Your task to perform on an android device: toggle translation in the chrome app Image 0: 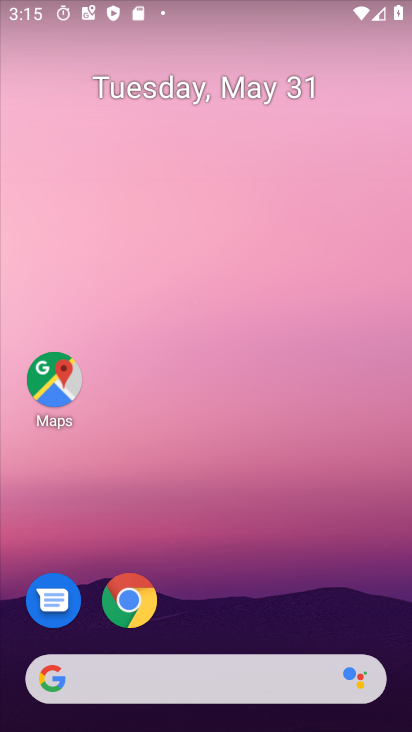
Step 0: drag from (219, 635) to (253, 0)
Your task to perform on an android device: toggle translation in the chrome app Image 1: 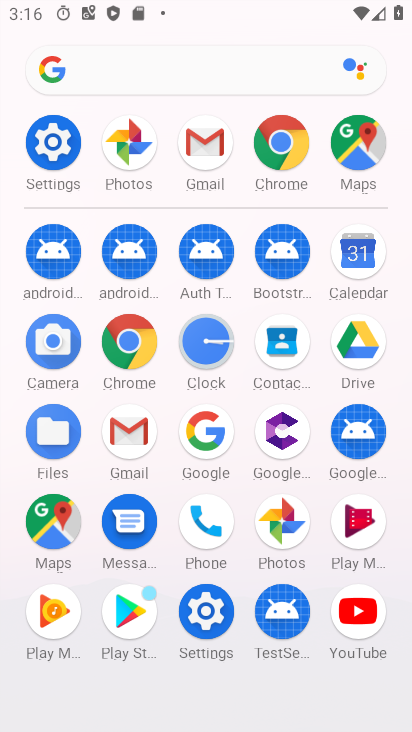
Step 1: click (123, 332)
Your task to perform on an android device: toggle translation in the chrome app Image 2: 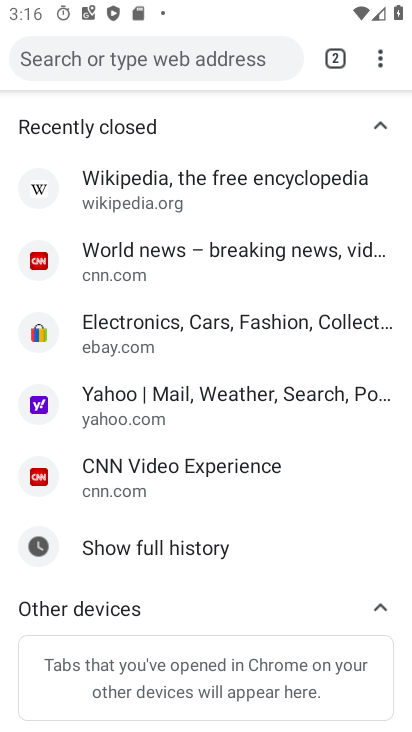
Step 2: click (338, 53)
Your task to perform on an android device: toggle translation in the chrome app Image 3: 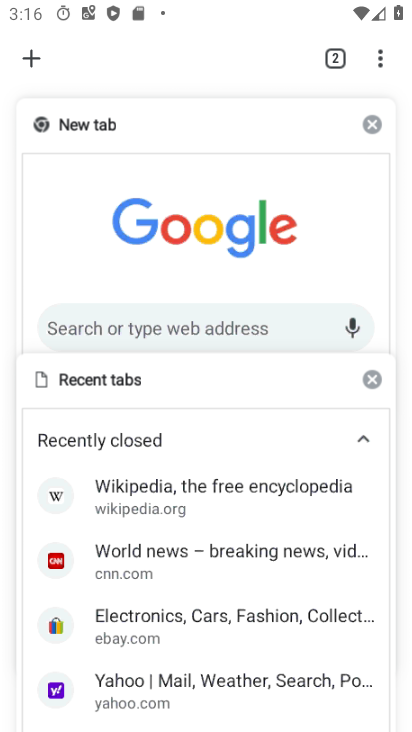
Step 3: click (367, 120)
Your task to perform on an android device: toggle translation in the chrome app Image 4: 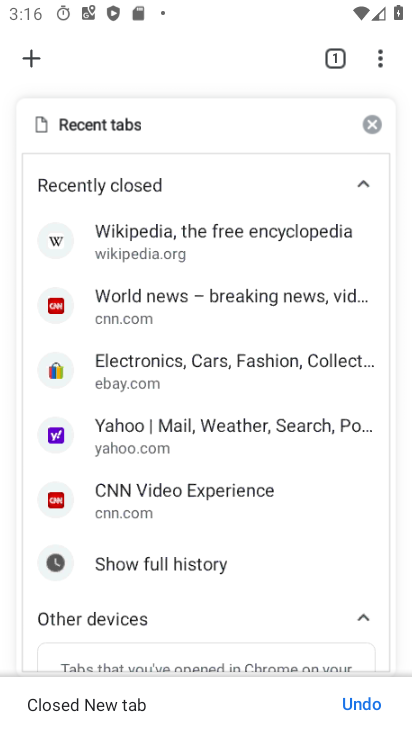
Step 4: click (371, 122)
Your task to perform on an android device: toggle translation in the chrome app Image 5: 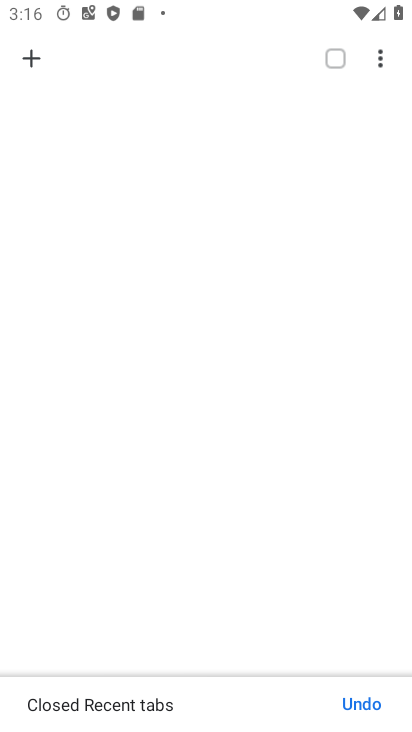
Step 5: click (35, 56)
Your task to perform on an android device: toggle translation in the chrome app Image 6: 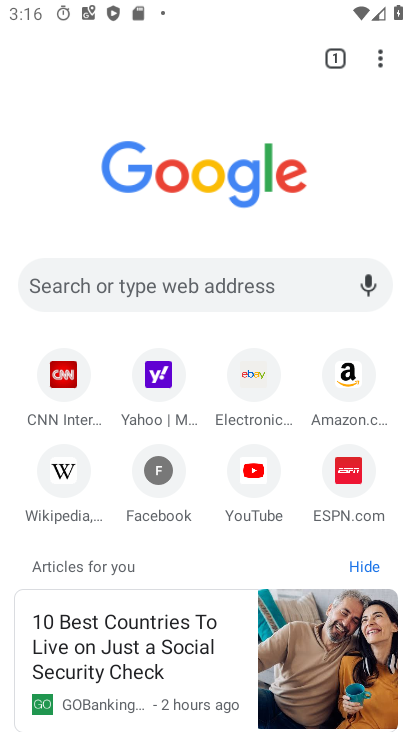
Step 6: click (378, 54)
Your task to perform on an android device: toggle translation in the chrome app Image 7: 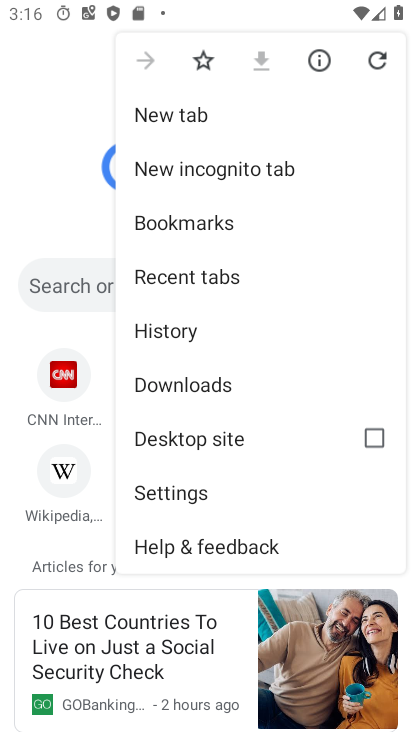
Step 7: click (216, 491)
Your task to perform on an android device: toggle translation in the chrome app Image 8: 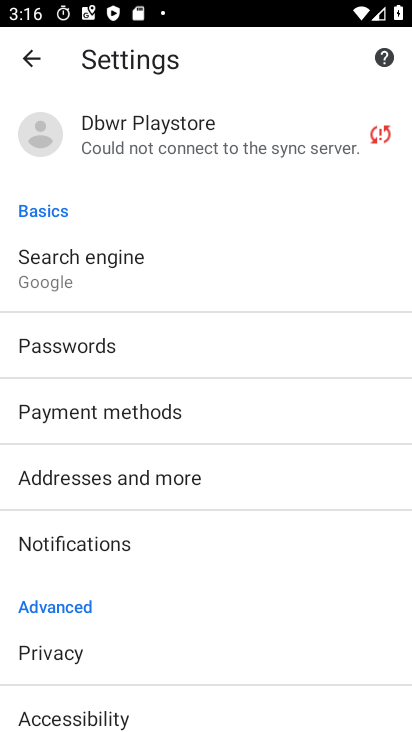
Step 8: drag from (205, 686) to (212, 154)
Your task to perform on an android device: toggle translation in the chrome app Image 9: 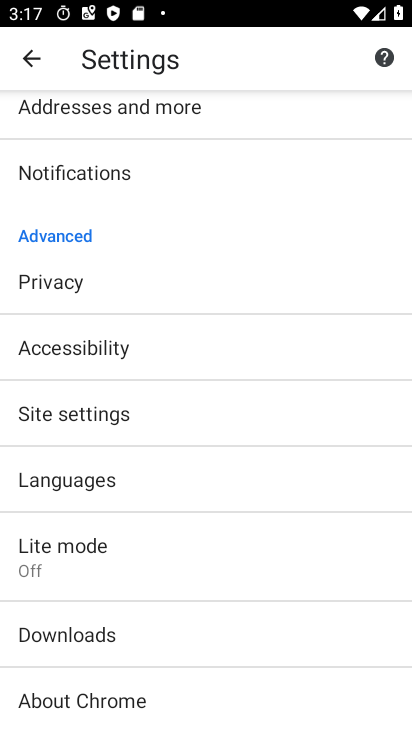
Step 9: click (122, 482)
Your task to perform on an android device: toggle translation in the chrome app Image 10: 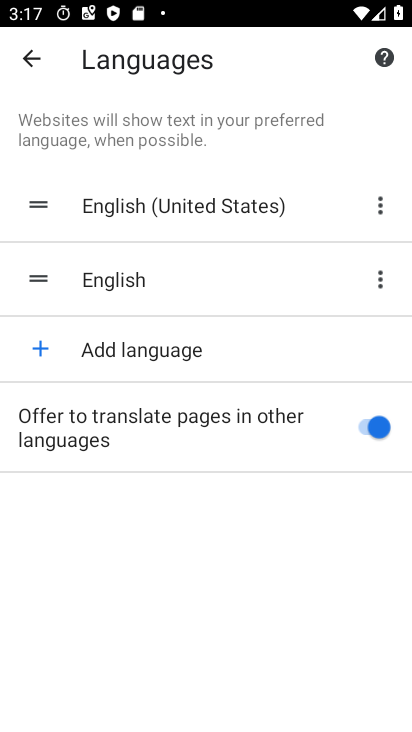
Step 10: click (371, 420)
Your task to perform on an android device: toggle translation in the chrome app Image 11: 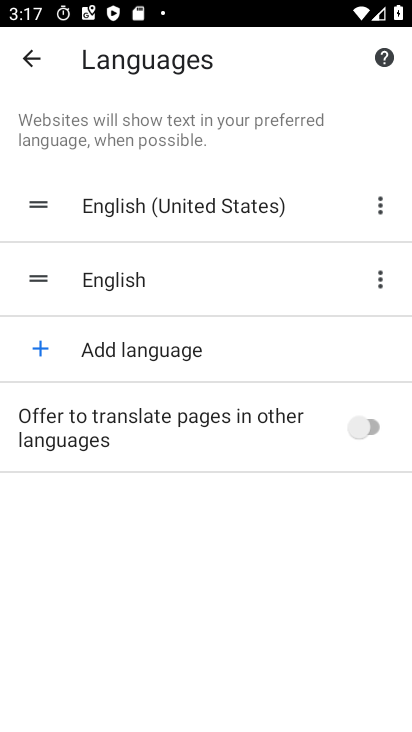
Step 11: task complete